Your task to perform on an android device: turn on location history Image 0: 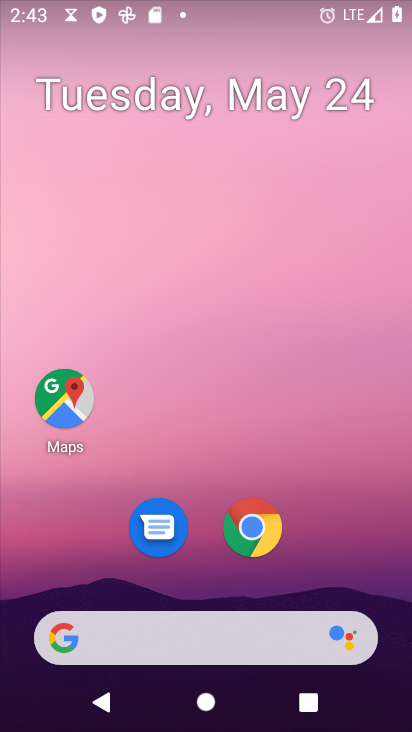
Step 0: click (75, 403)
Your task to perform on an android device: turn on location history Image 1: 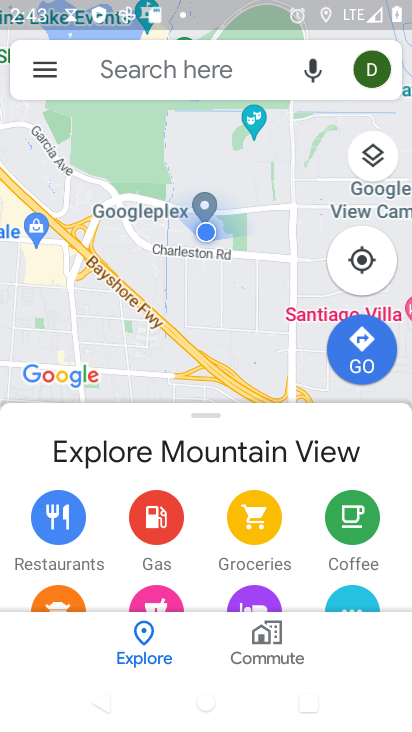
Step 1: click (40, 58)
Your task to perform on an android device: turn on location history Image 2: 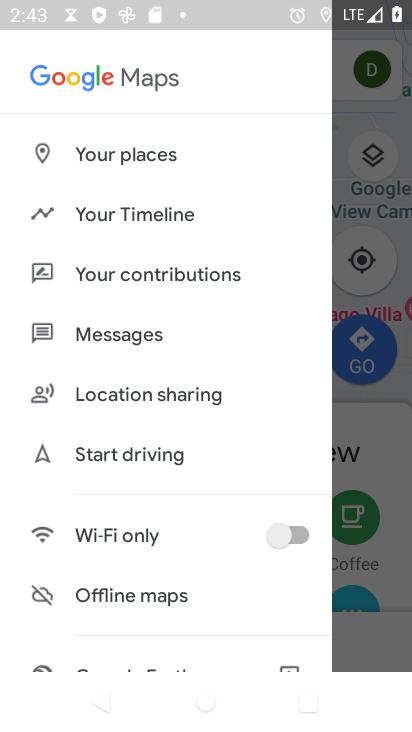
Step 2: click (116, 210)
Your task to perform on an android device: turn on location history Image 3: 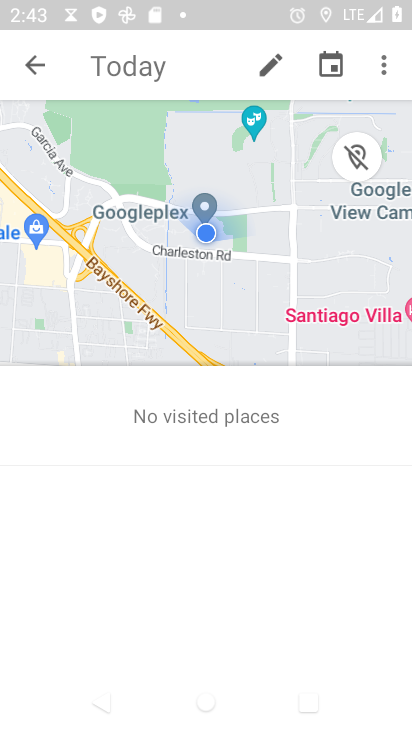
Step 3: click (386, 77)
Your task to perform on an android device: turn on location history Image 4: 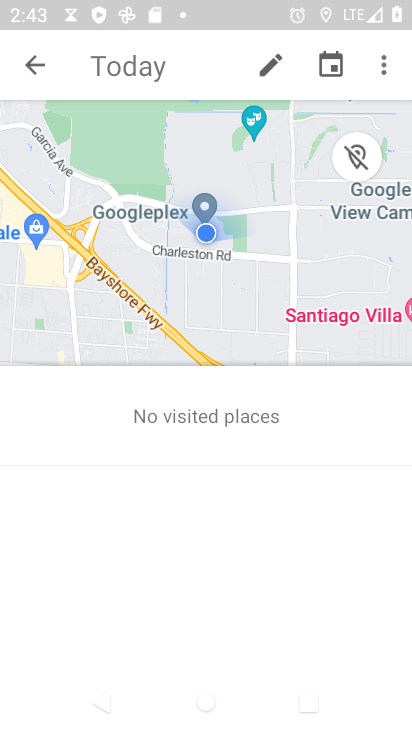
Step 4: click (383, 71)
Your task to perform on an android device: turn on location history Image 5: 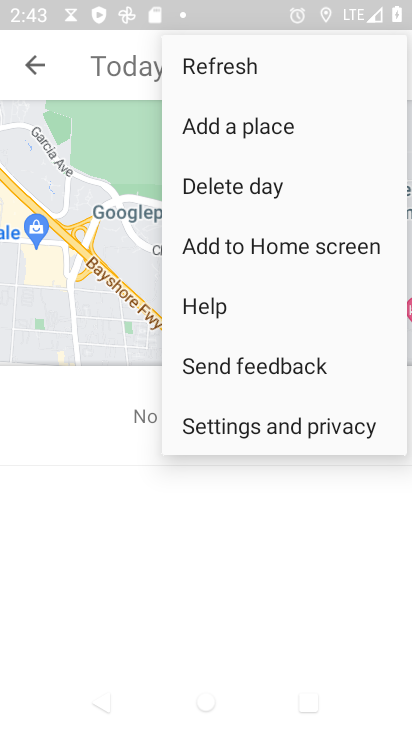
Step 5: click (222, 420)
Your task to perform on an android device: turn on location history Image 6: 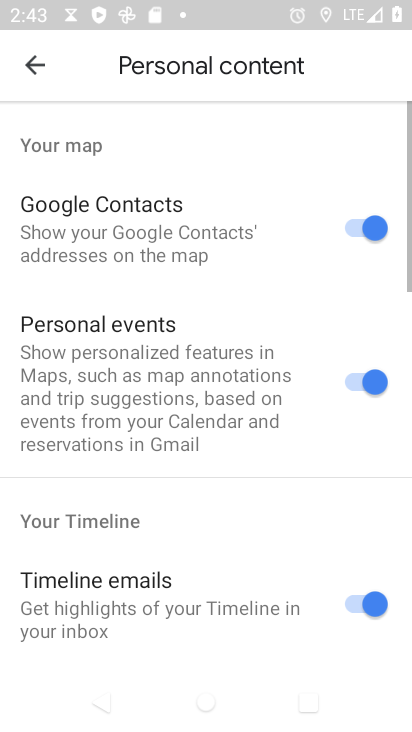
Step 6: drag from (271, 200) to (346, 86)
Your task to perform on an android device: turn on location history Image 7: 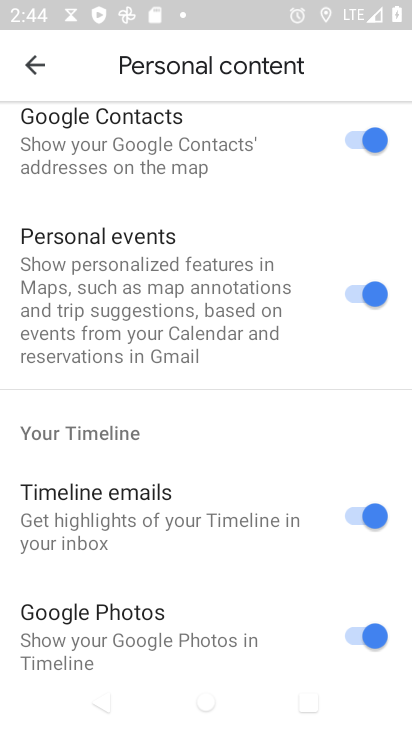
Step 7: drag from (329, 265) to (401, 61)
Your task to perform on an android device: turn on location history Image 8: 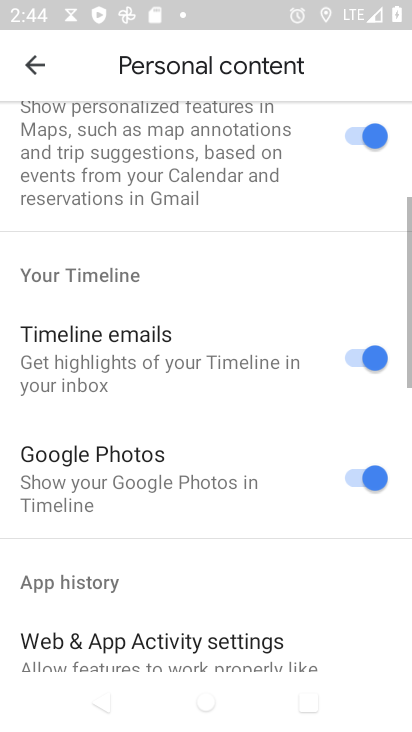
Step 8: drag from (205, 619) to (373, 155)
Your task to perform on an android device: turn on location history Image 9: 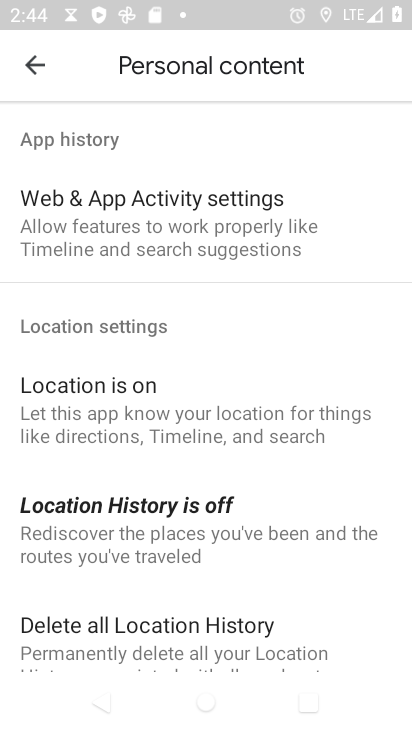
Step 9: click (135, 503)
Your task to perform on an android device: turn on location history Image 10: 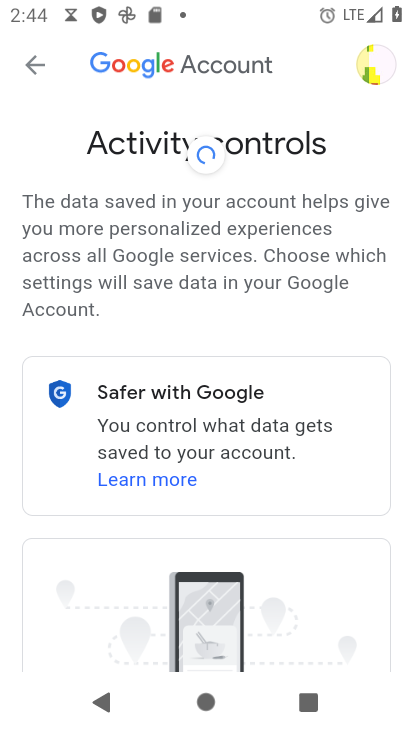
Step 10: drag from (205, 541) to (291, 52)
Your task to perform on an android device: turn on location history Image 11: 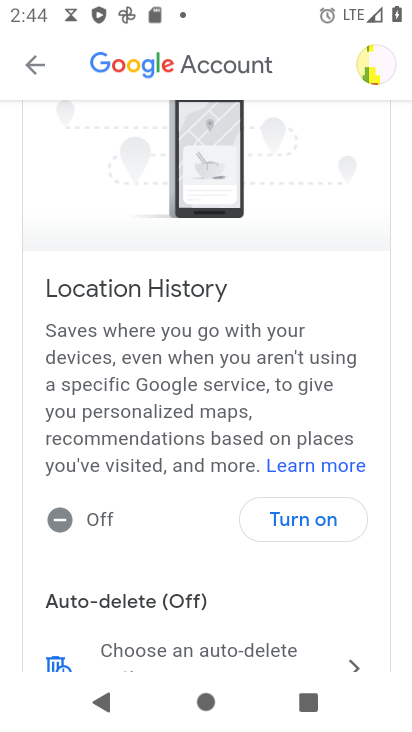
Step 11: click (319, 524)
Your task to perform on an android device: turn on location history Image 12: 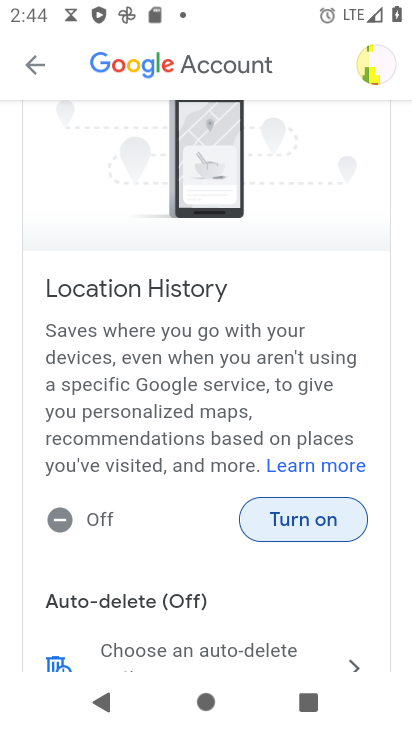
Step 12: click (305, 521)
Your task to perform on an android device: turn on location history Image 13: 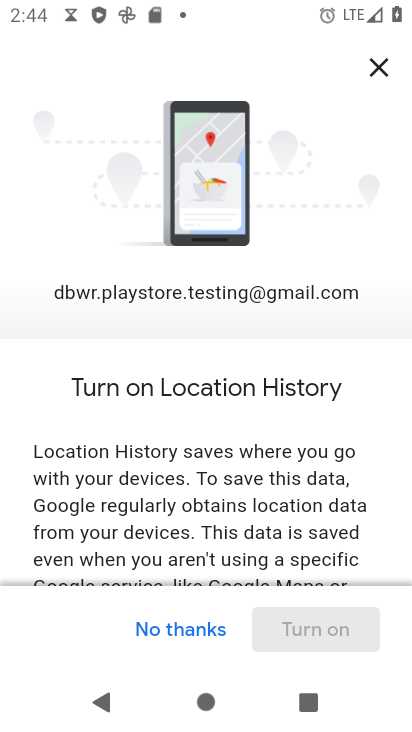
Step 13: drag from (284, 525) to (330, 226)
Your task to perform on an android device: turn on location history Image 14: 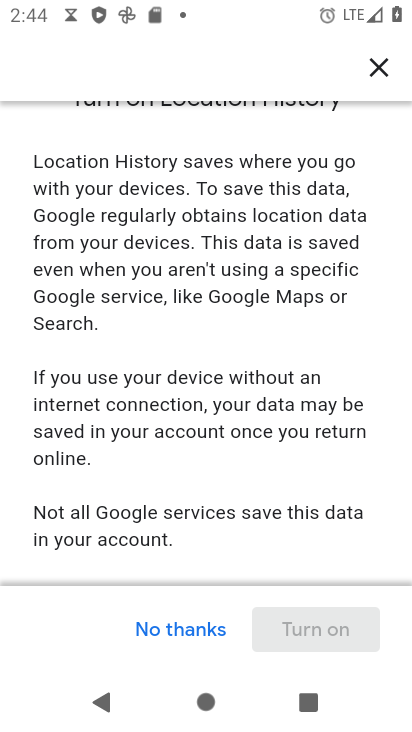
Step 14: drag from (236, 498) to (359, 54)
Your task to perform on an android device: turn on location history Image 15: 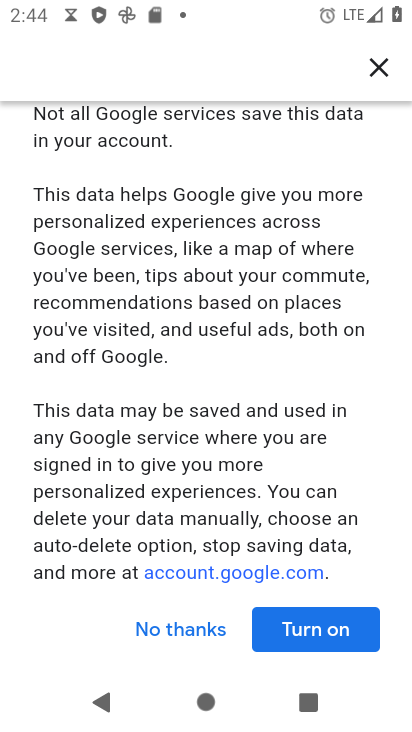
Step 15: click (286, 631)
Your task to perform on an android device: turn on location history Image 16: 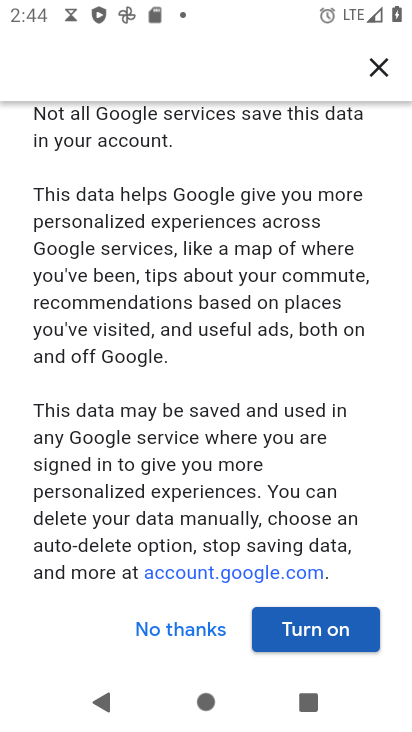
Step 16: click (328, 637)
Your task to perform on an android device: turn on location history Image 17: 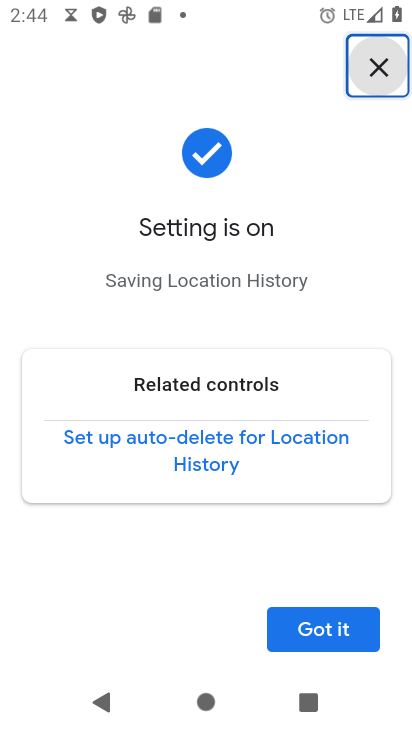
Step 17: click (318, 628)
Your task to perform on an android device: turn on location history Image 18: 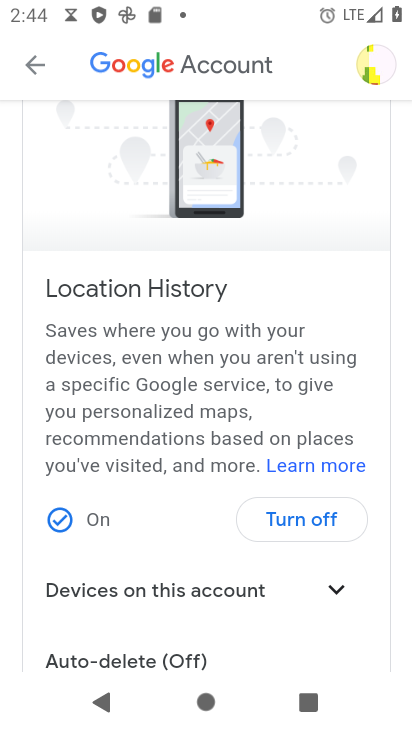
Step 18: task complete